Your task to perform on an android device: open chrome privacy settings Image 0: 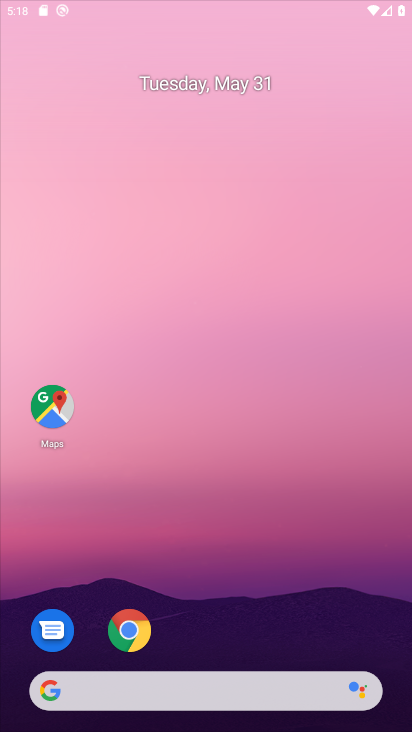
Step 0: click (200, 33)
Your task to perform on an android device: open chrome privacy settings Image 1: 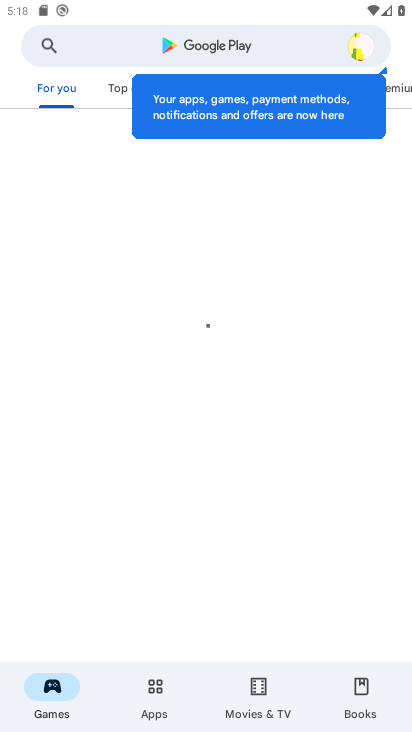
Step 1: press home button
Your task to perform on an android device: open chrome privacy settings Image 2: 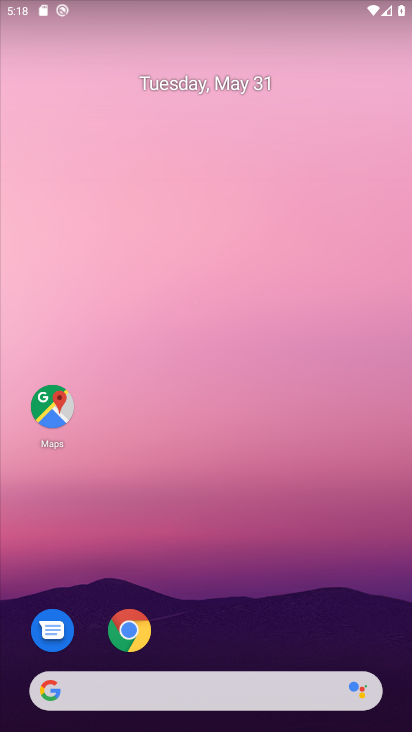
Step 2: click (125, 619)
Your task to perform on an android device: open chrome privacy settings Image 3: 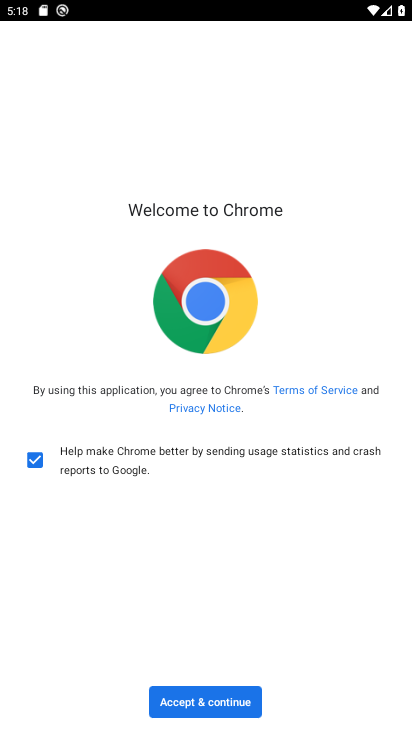
Step 3: click (199, 693)
Your task to perform on an android device: open chrome privacy settings Image 4: 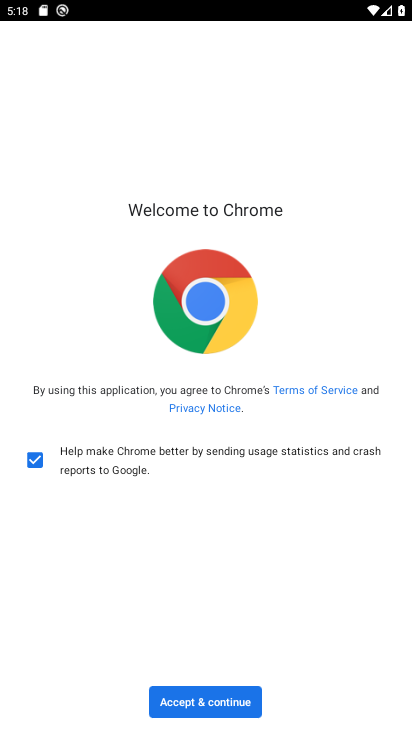
Step 4: click (199, 693)
Your task to perform on an android device: open chrome privacy settings Image 5: 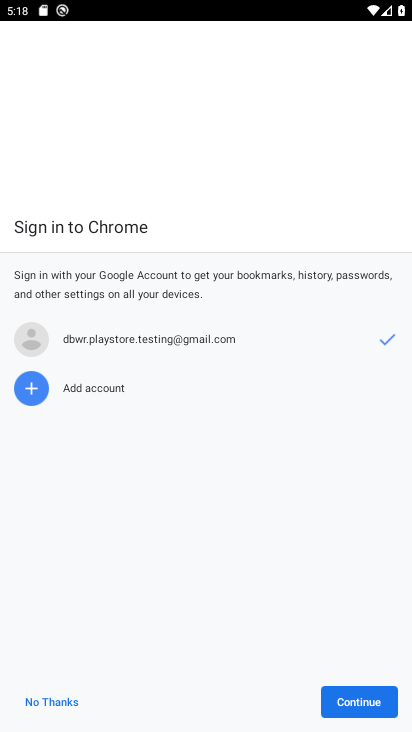
Step 5: click (335, 689)
Your task to perform on an android device: open chrome privacy settings Image 6: 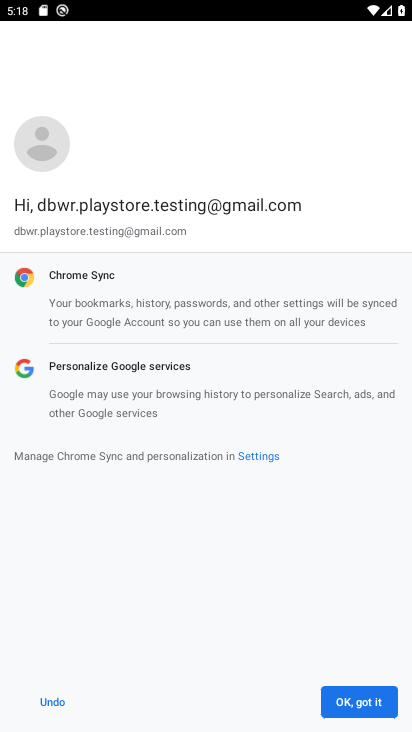
Step 6: click (339, 688)
Your task to perform on an android device: open chrome privacy settings Image 7: 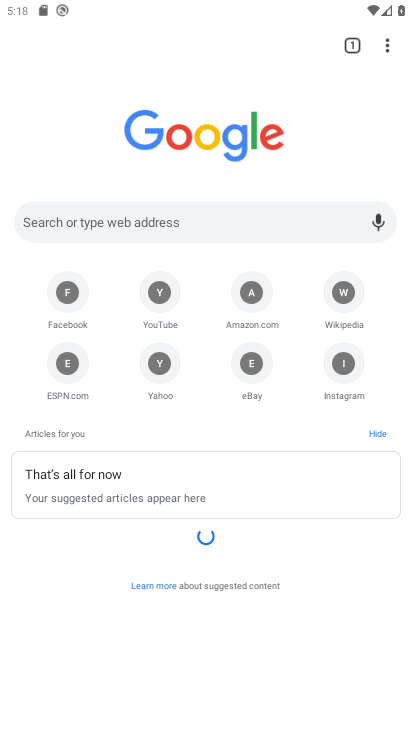
Step 7: click (384, 49)
Your task to perform on an android device: open chrome privacy settings Image 8: 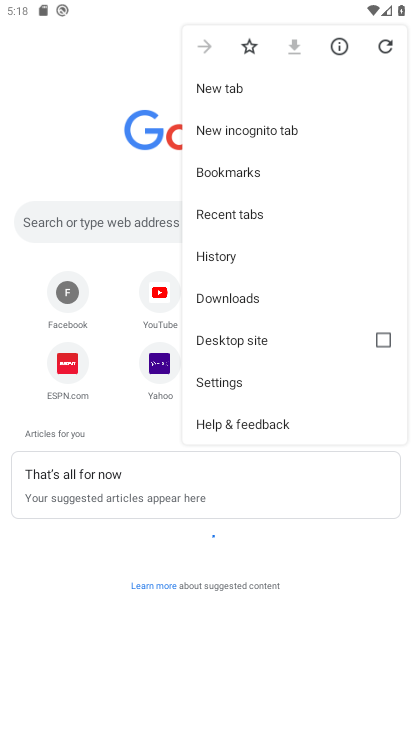
Step 8: click (230, 384)
Your task to perform on an android device: open chrome privacy settings Image 9: 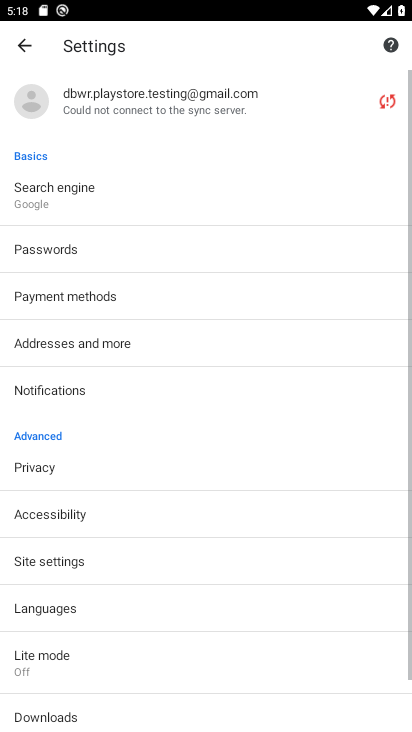
Step 9: click (93, 464)
Your task to perform on an android device: open chrome privacy settings Image 10: 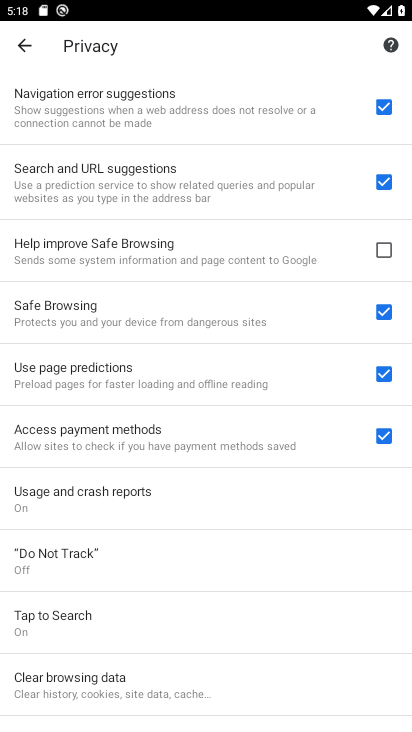
Step 10: task complete